Your task to perform on an android device: change alarm snooze length Image 0: 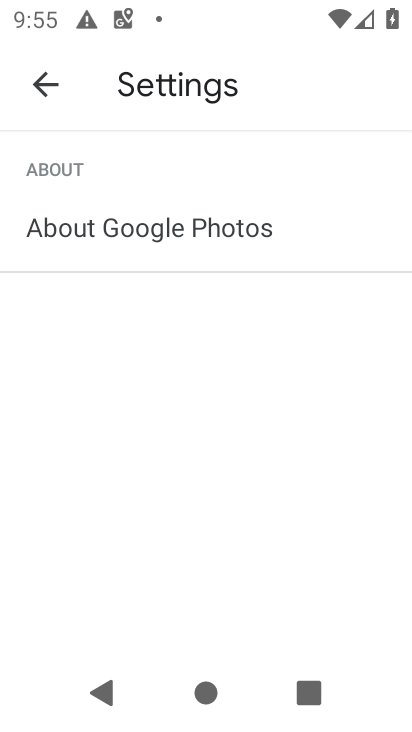
Step 0: press home button
Your task to perform on an android device: change alarm snooze length Image 1: 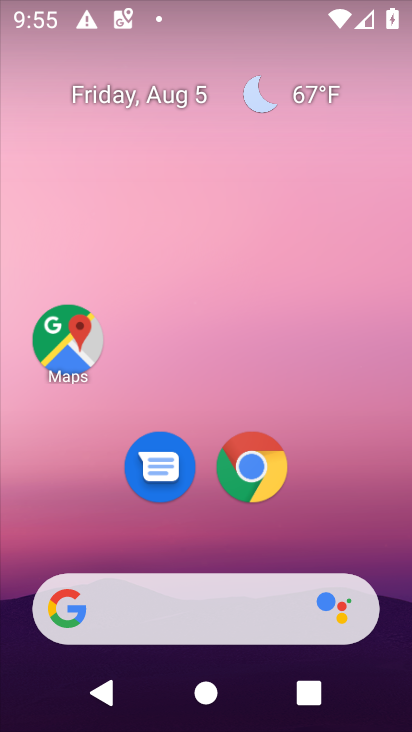
Step 1: drag from (239, 582) to (235, 228)
Your task to perform on an android device: change alarm snooze length Image 2: 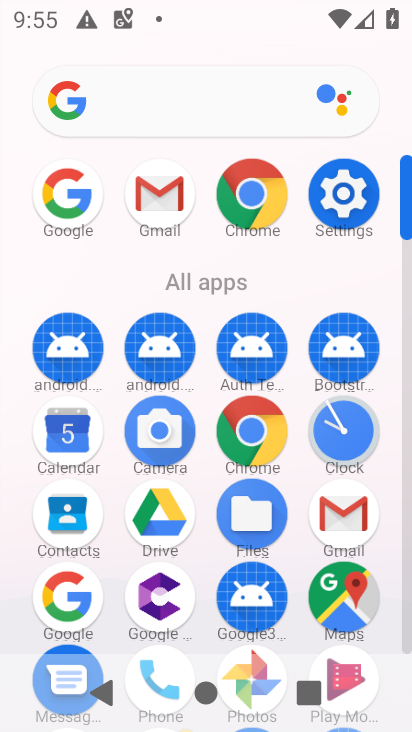
Step 2: click (343, 431)
Your task to perform on an android device: change alarm snooze length Image 3: 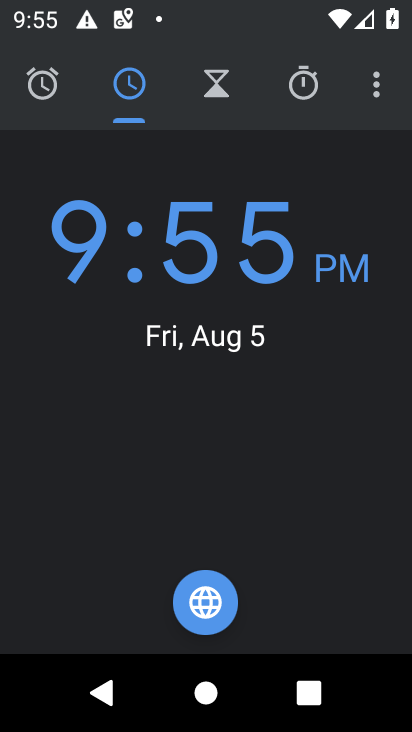
Step 3: click (388, 72)
Your task to perform on an android device: change alarm snooze length Image 4: 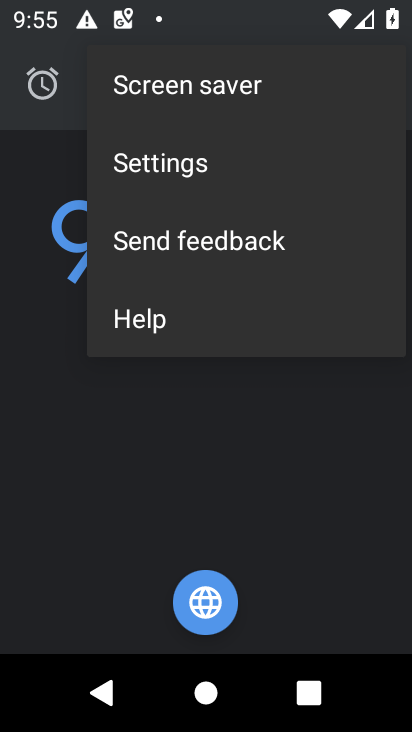
Step 4: click (140, 168)
Your task to perform on an android device: change alarm snooze length Image 5: 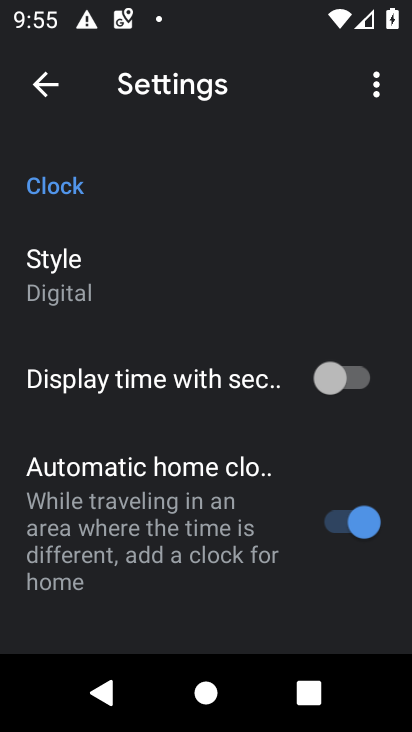
Step 5: drag from (91, 554) to (95, 207)
Your task to perform on an android device: change alarm snooze length Image 6: 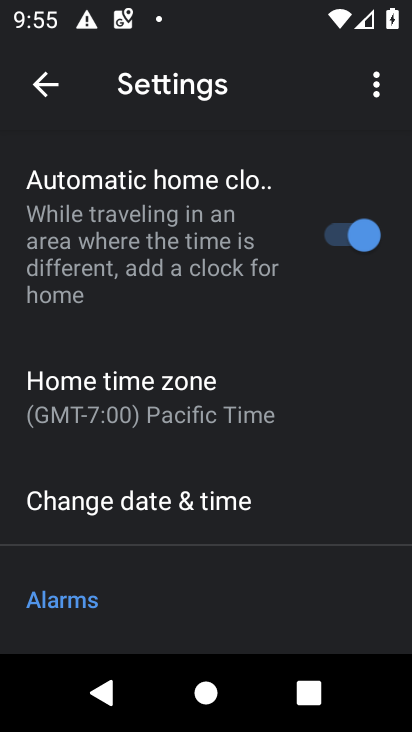
Step 6: drag from (164, 575) to (157, 248)
Your task to perform on an android device: change alarm snooze length Image 7: 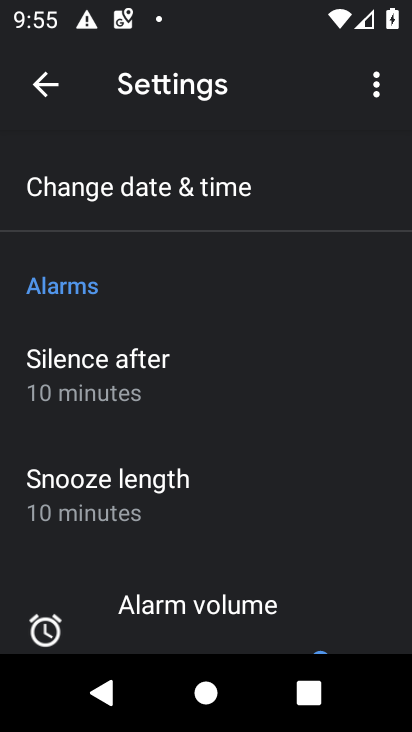
Step 7: click (99, 479)
Your task to perform on an android device: change alarm snooze length Image 8: 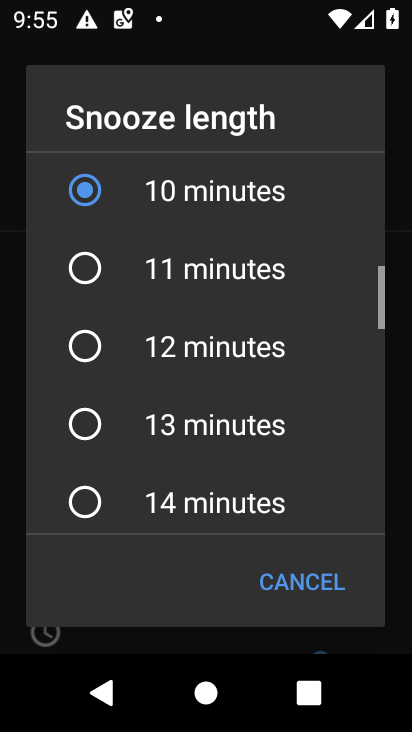
Step 8: click (100, 432)
Your task to perform on an android device: change alarm snooze length Image 9: 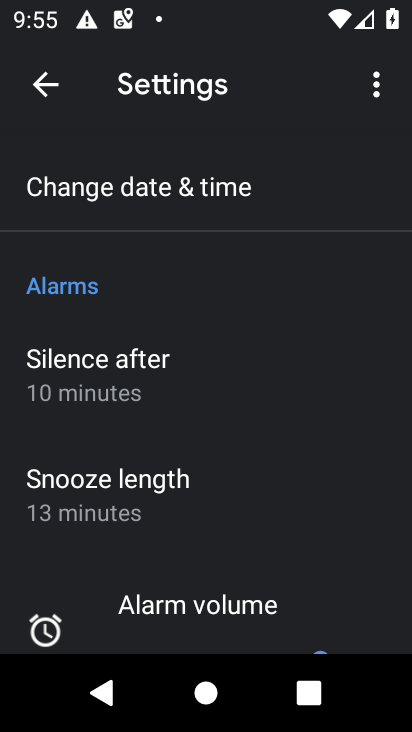
Step 9: task complete